Your task to perform on an android device: open app "Walmart Shopping & Grocery" Image 0: 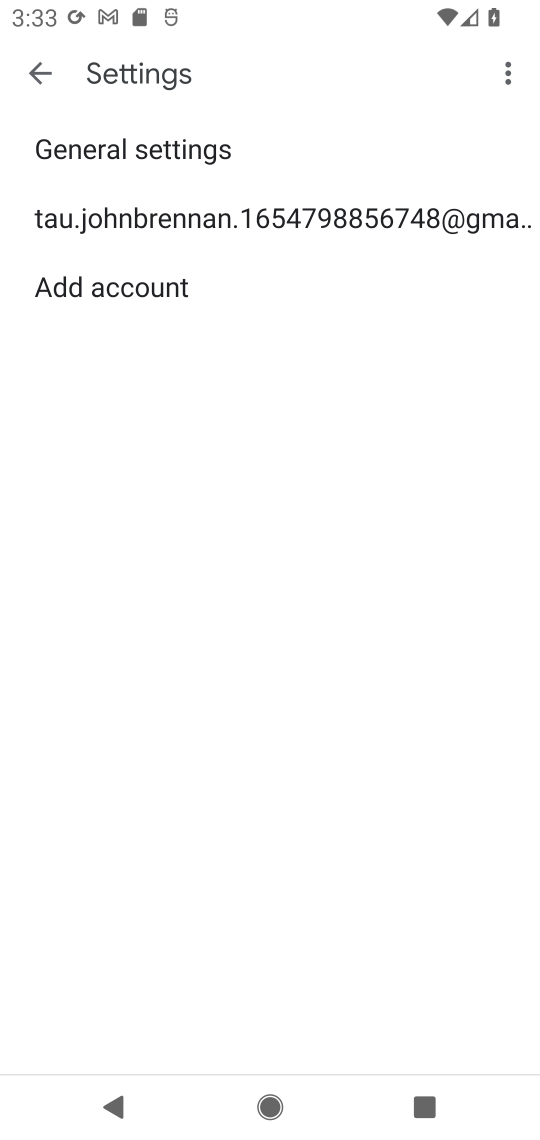
Step 0: press home button
Your task to perform on an android device: open app "Walmart Shopping & Grocery" Image 1: 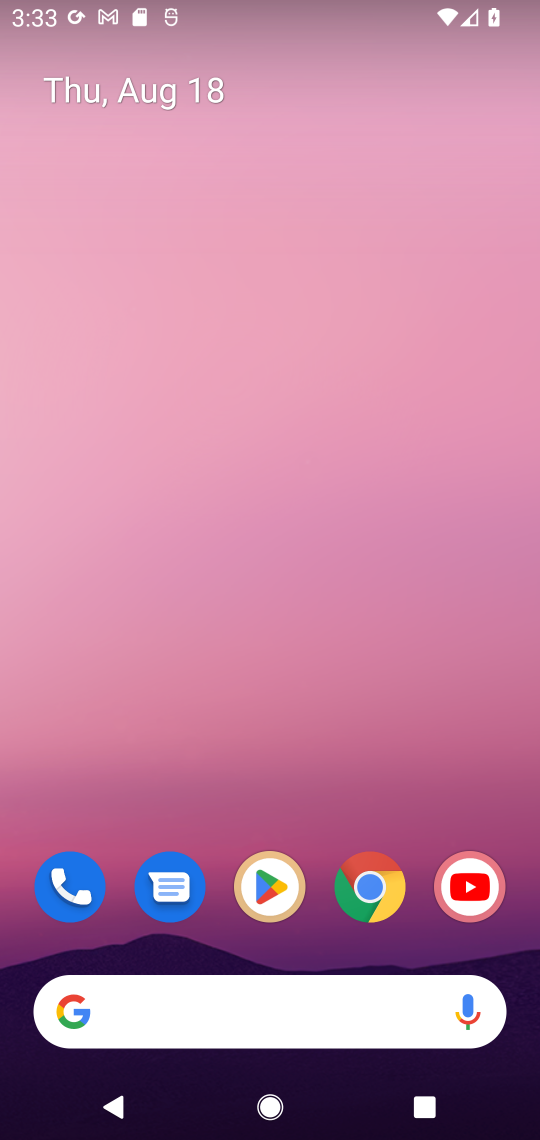
Step 1: click (262, 877)
Your task to perform on an android device: open app "Walmart Shopping & Grocery" Image 2: 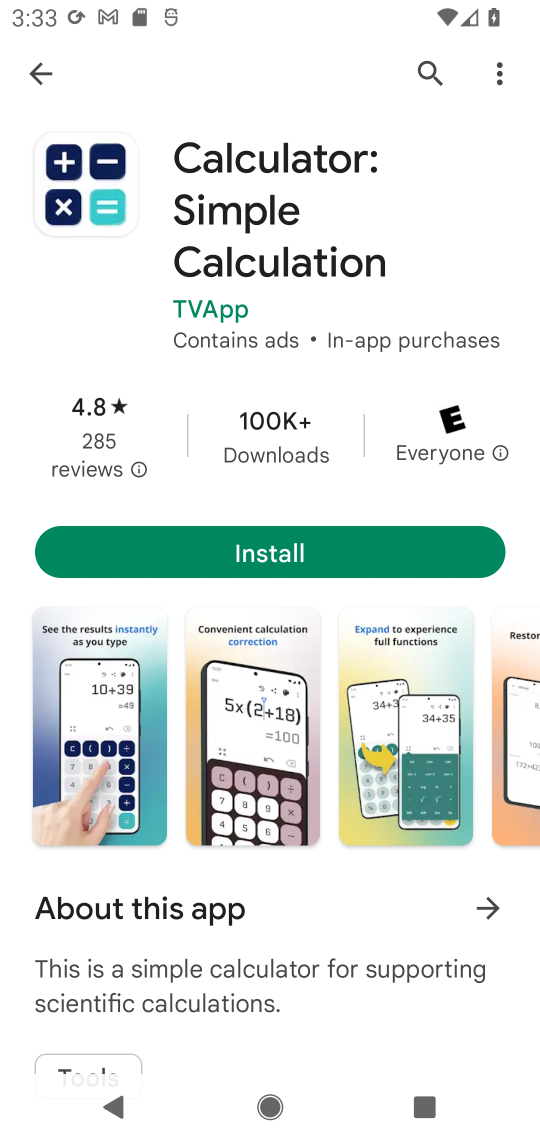
Step 2: click (423, 72)
Your task to perform on an android device: open app "Walmart Shopping & Grocery" Image 3: 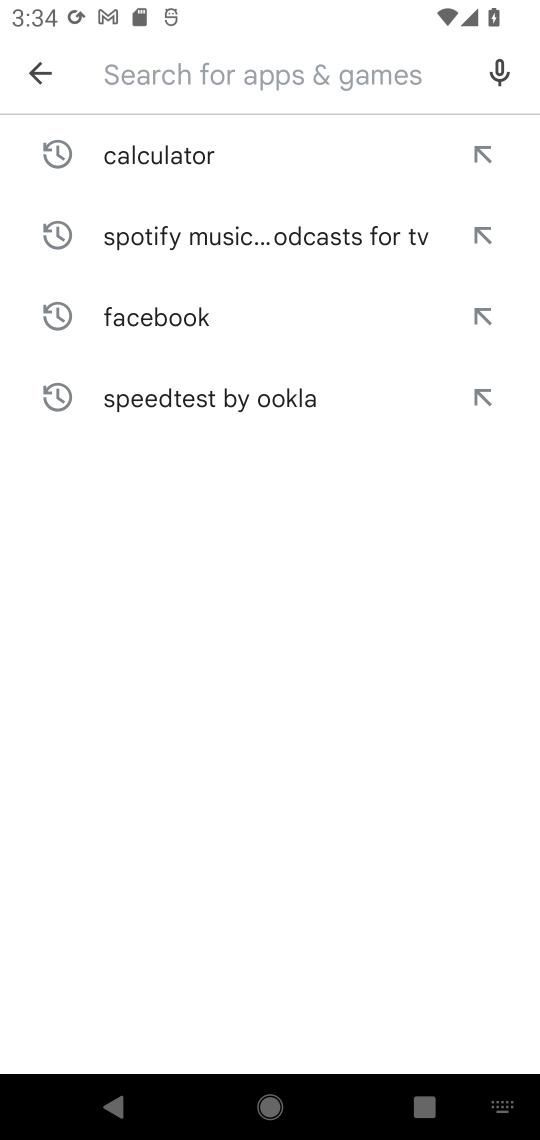
Step 3: type "Walmart Shopping & Grocery"
Your task to perform on an android device: open app "Walmart Shopping & Grocery" Image 4: 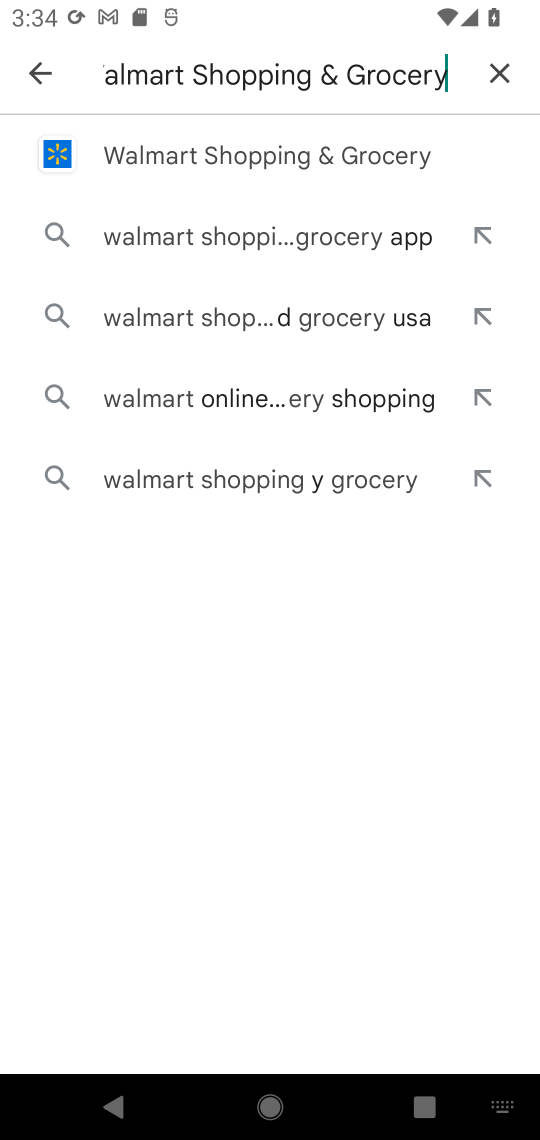
Step 4: click (247, 158)
Your task to perform on an android device: open app "Walmart Shopping & Grocery" Image 5: 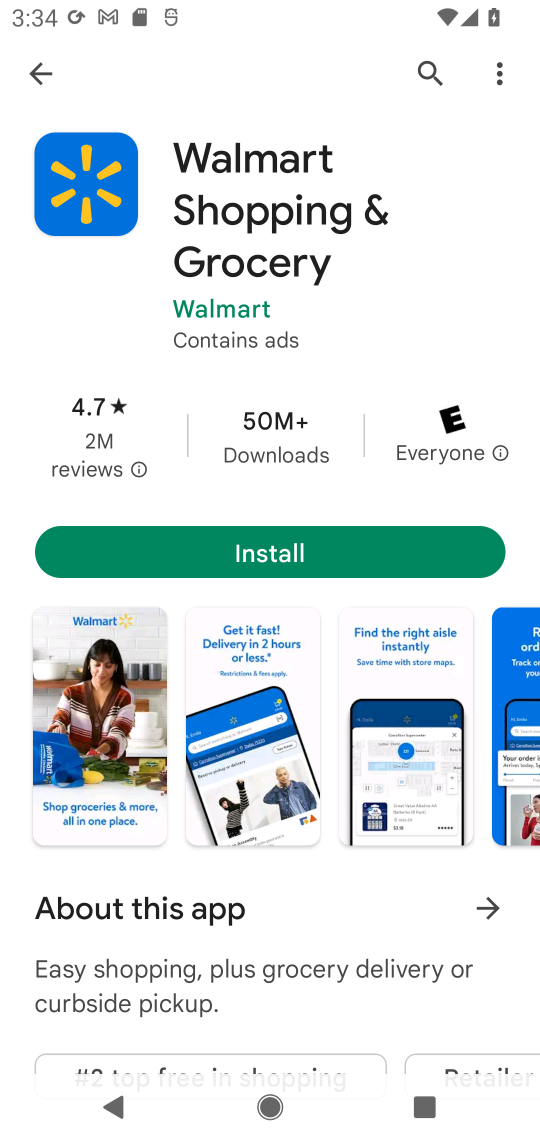
Step 5: task complete